Your task to perform on an android device: Search for pizza restaurants on Maps Image 0: 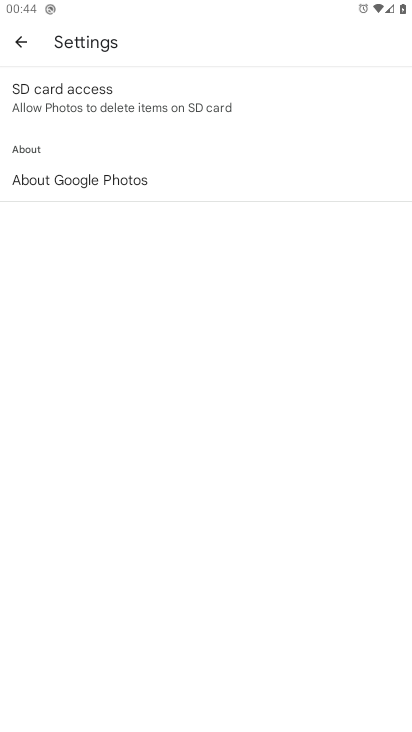
Step 0: press home button
Your task to perform on an android device: Search for pizza restaurants on Maps Image 1: 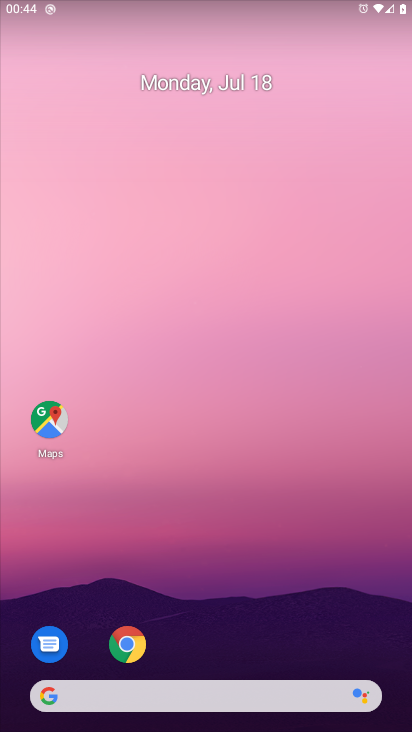
Step 1: click (49, 414)
Your task to perform on an android device: Search for pizza restaurants on Maps Image 2: 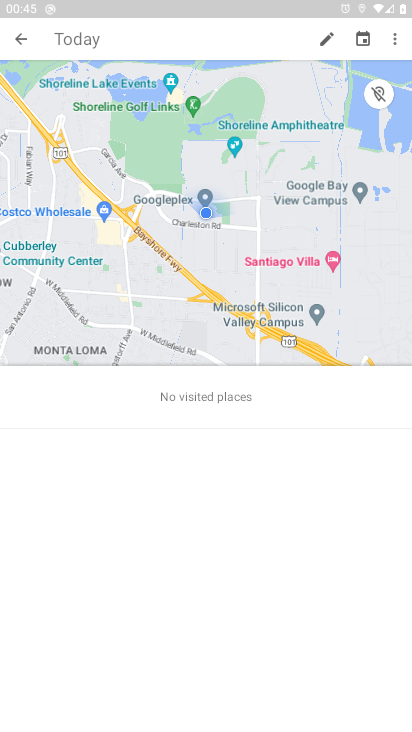
Step 2: click (12, 37)
Your task to perform on an android device: Search for pizza restaurants on Maps Image 3: 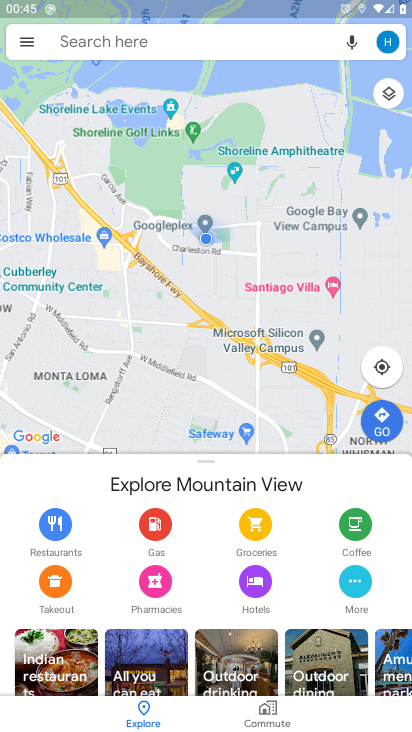
Step 3: type "pizza restaurants"
Your task to perform on an android device: Search for pizza restaurants on Maps Image 4: 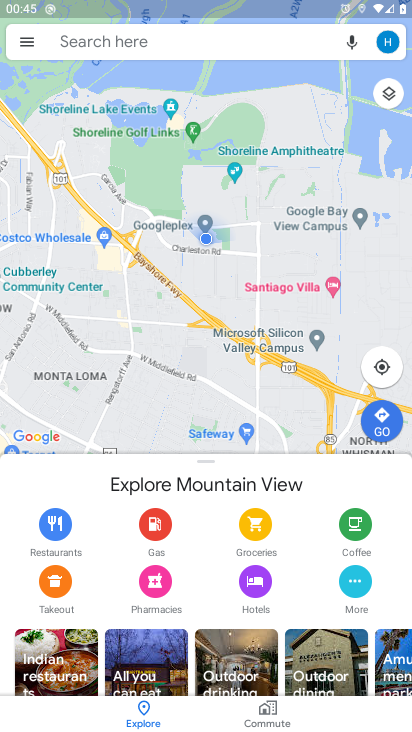
Step 4: click (118, 48)
Your task to perform on an android device: Search for pizza restaurants on Maps Image 5: 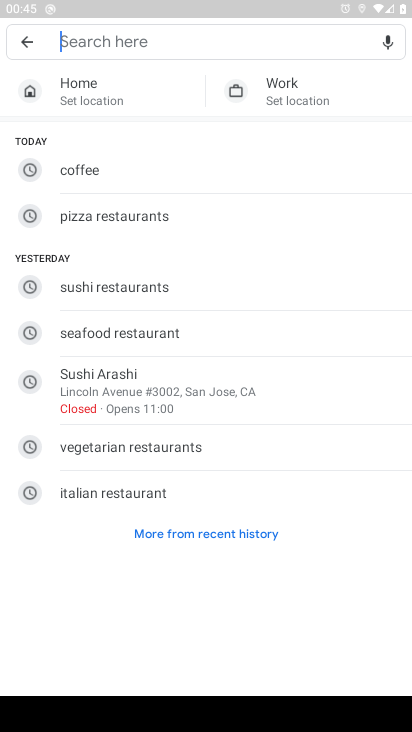
Step 5: click (124, 37)
Your task to perform on an android device: Search for pizza restaurants on Maps Image 6: 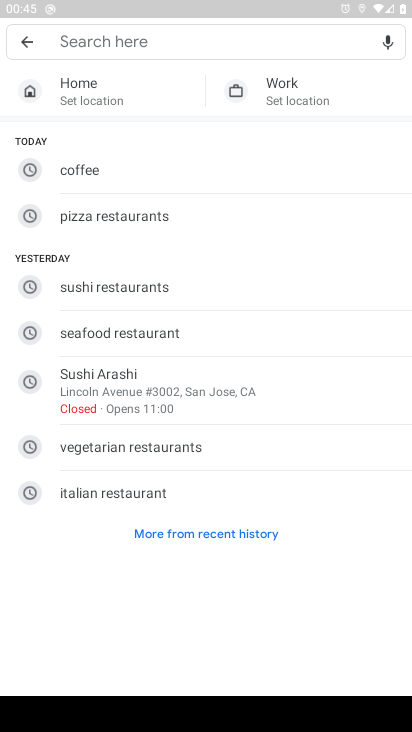
Step 6: type "pizza restaurants"
Your task to perform on an android device: Search for pizza restaurants on Maps Image 7: 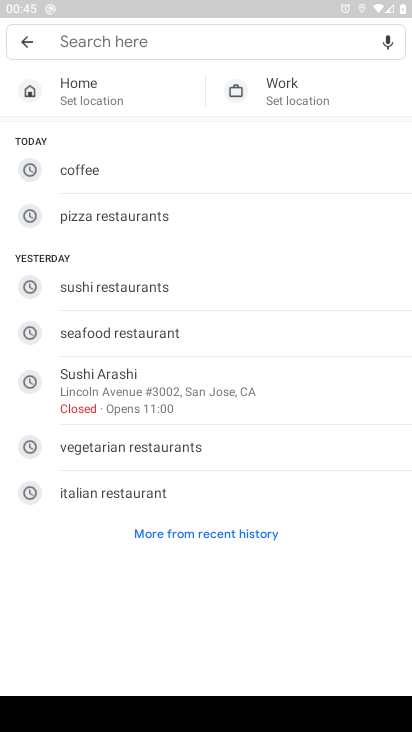
Step 7: click (93, 36)
Your task to perform on an android device: Search for pizza restaurants on Maps Image 8: 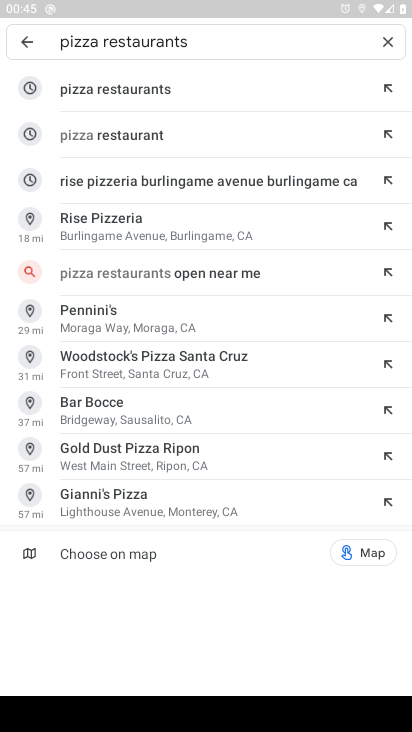
Step 8: press enter
Your task to perform on an android device: Search for pizza restaurants on Maps Image 9: 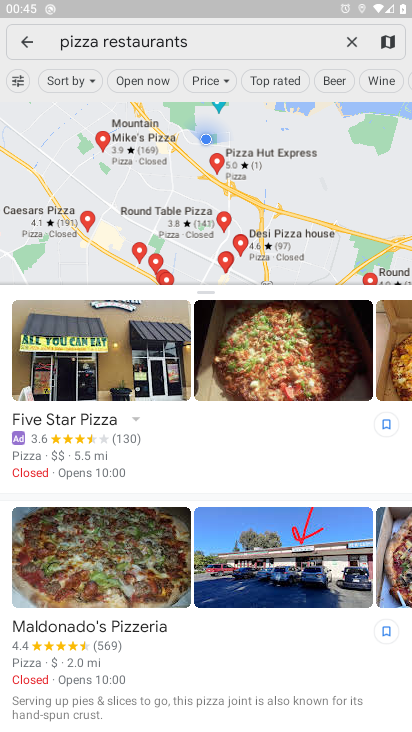
Step 9: task complete